Your task to perform on an android device: Open Android settings Image 0: 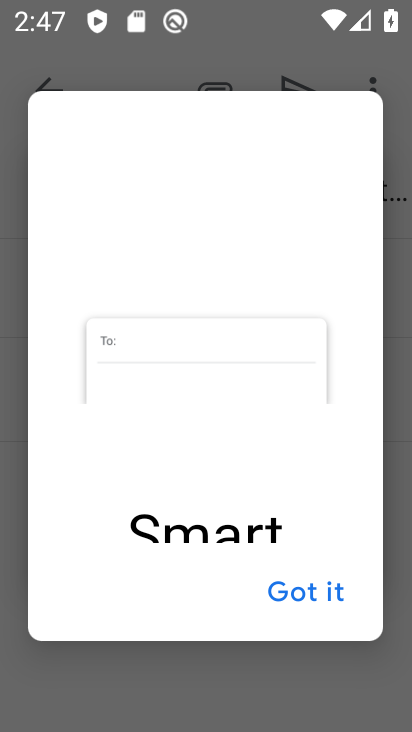
Step 0: press back button
Your task to perform on an android device: Open Android settings Image 1: 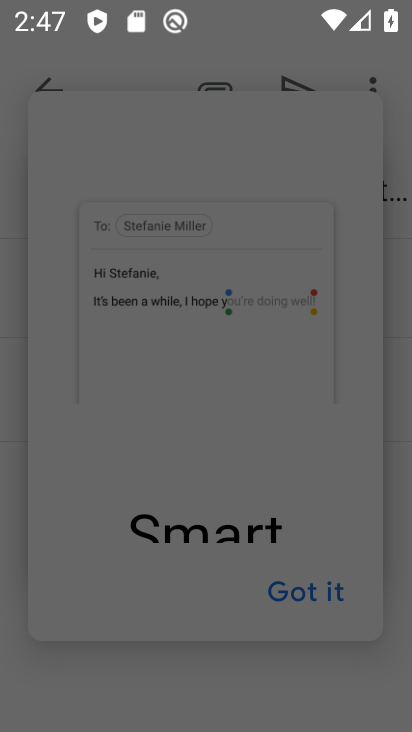
Step 1: press home button
Your task to perform on an android device: Open Android settings Image 2: 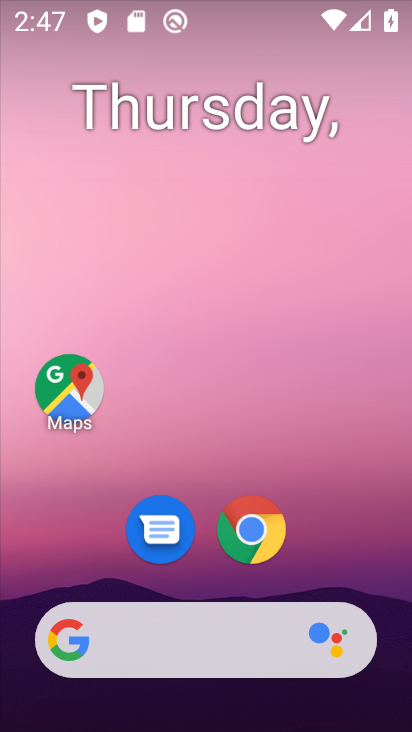
Step 2: drag from (350, 519) to (296, 70)
Your task to perform on an android device: Open Android settings Image 3: 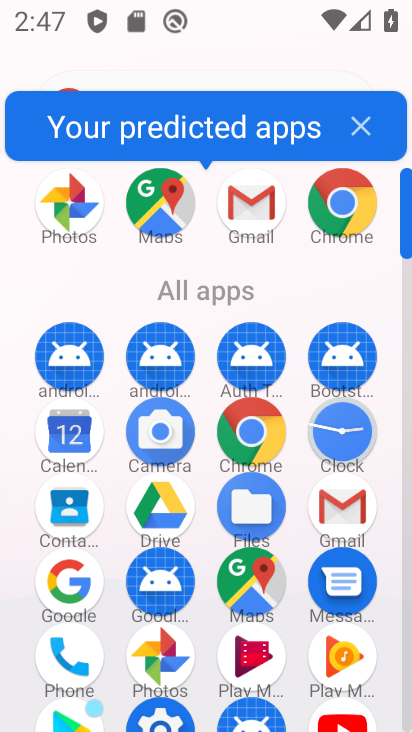
Step 3: drag from (200, 549) to (247, 276)
Your task to perform on an android device: Open Android settings Image 4: 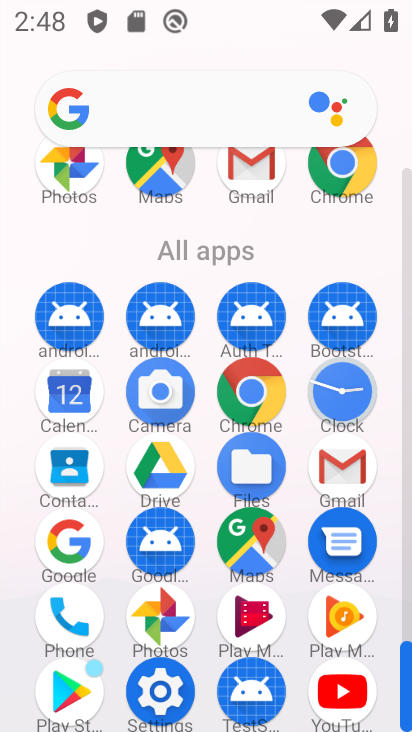
Step 4: click (160, 692)
Your task to perform on an android device: Open Android settings Image 5: 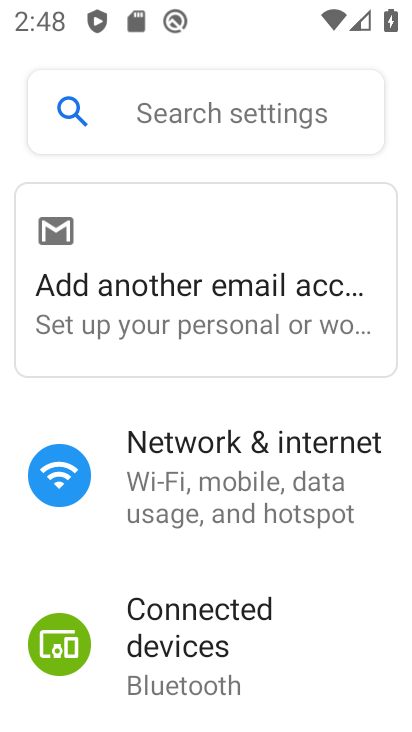
Step 5: task complete